Your task to perform on an android device: turn off picture-in-picture Image 0: 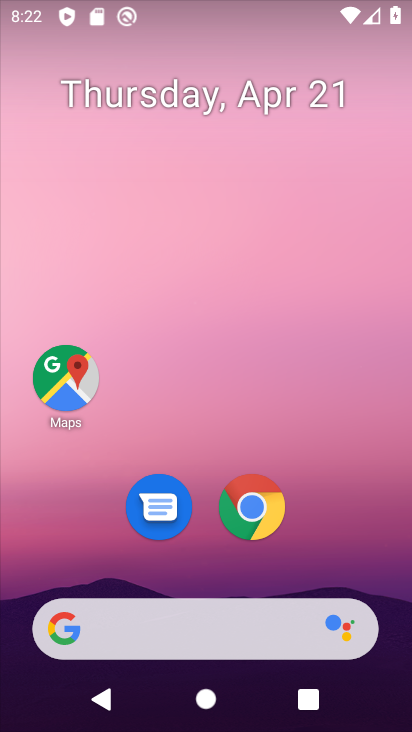
Step 0: drag from (348, 499) to (338, 135)
Your task to perform on an android device: turn off picture-in-picture Image 1: 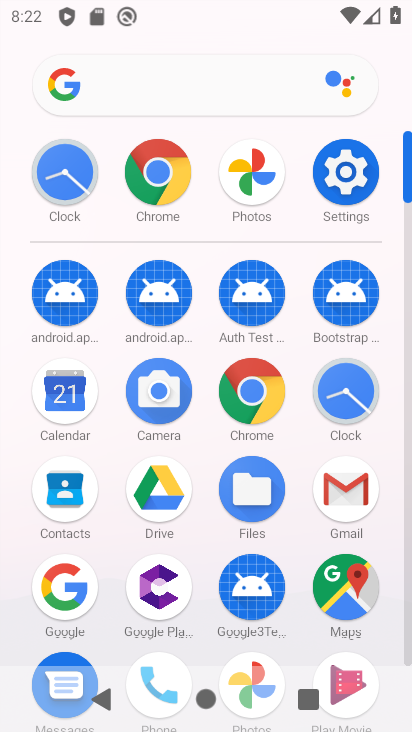
Step 1: click (365, 172)
Your task to perform on an android device: turn off picture-in-picture Image 2: 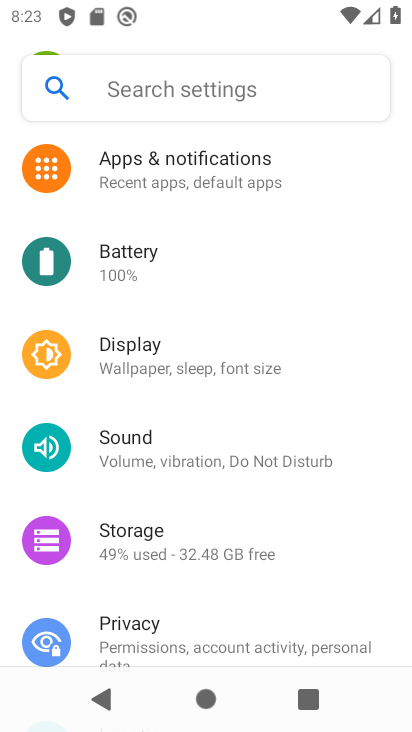
Step 2: click (245, 179)
Your task to perform on an android device: turn off picture-in-picture Image 3: 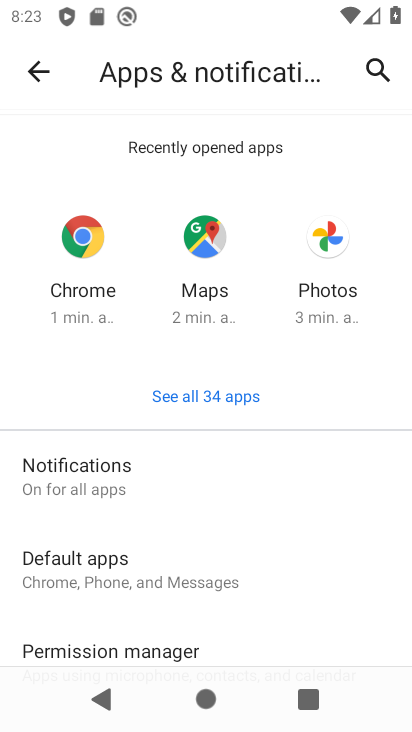
Step 3: drag from (291, 607) to (283, 208)
Your task to perform on an android device: turn off picture-in-picture Image 4: 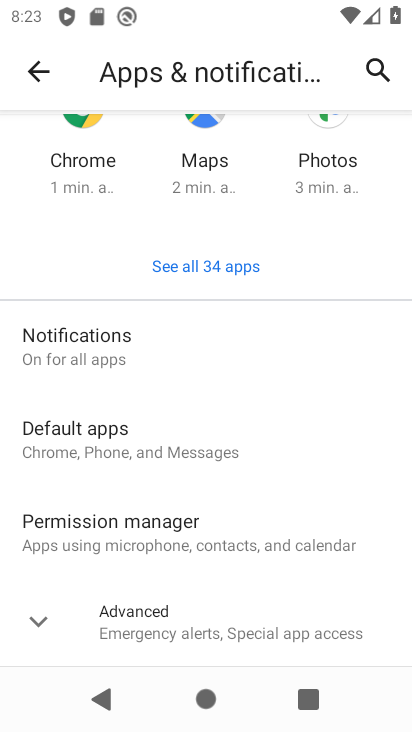
Step 4: click (287, 615)
Your task to perform on an android device: turn off picture-in-picture Image 5: 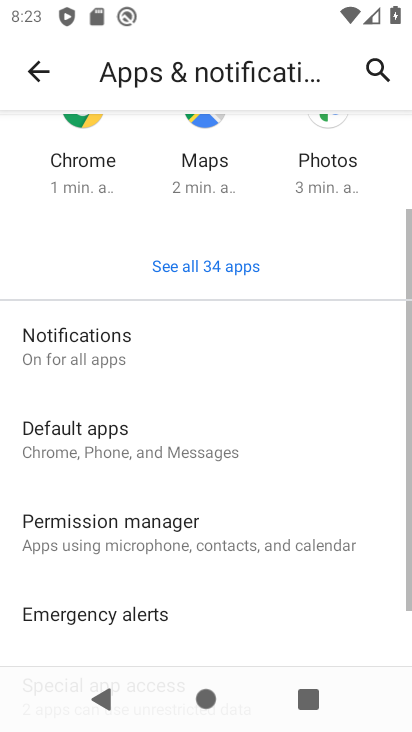
Step 5: drag from (286, 614) to (281, 243)
Your task to perform on an android device: turn off picture-in-picture Image 6: 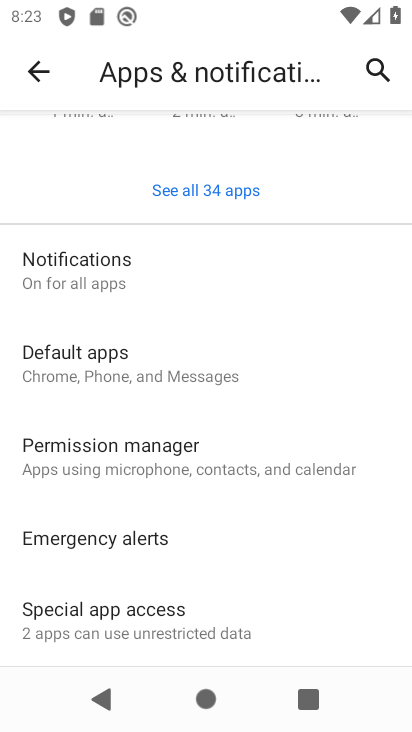
Step 6: click (216, 623)
Your task to perform on an android device: turn off picture-in-picture Image 7: 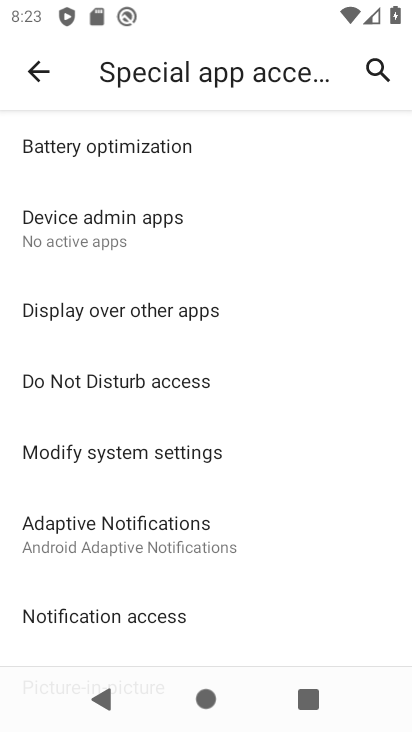
Step 7: drag from (293, 569) to (311, 189)
Your task to perform on an android device: turn off picture-in-picture Image 8: 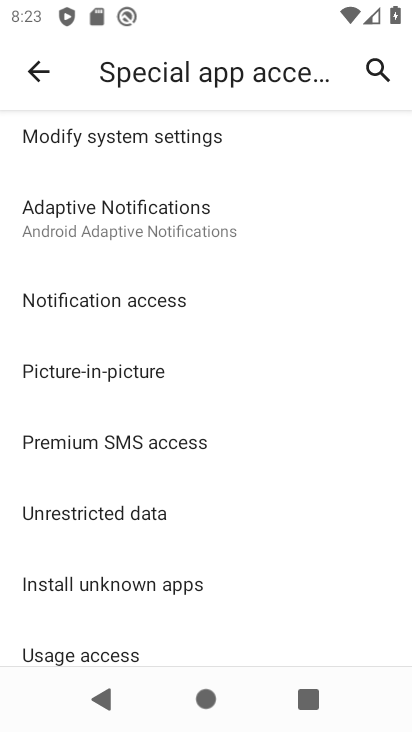
Step 8: click (157, 370)
Your task to perform on an android device: turn off picture-in-picture Image 9: 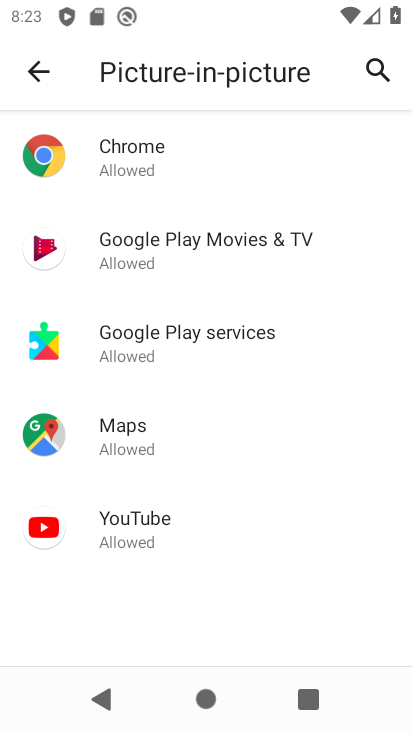
Step 9: click (134, 167)
Your task to perform on an android device: turn off picture-in-picture Image 10: 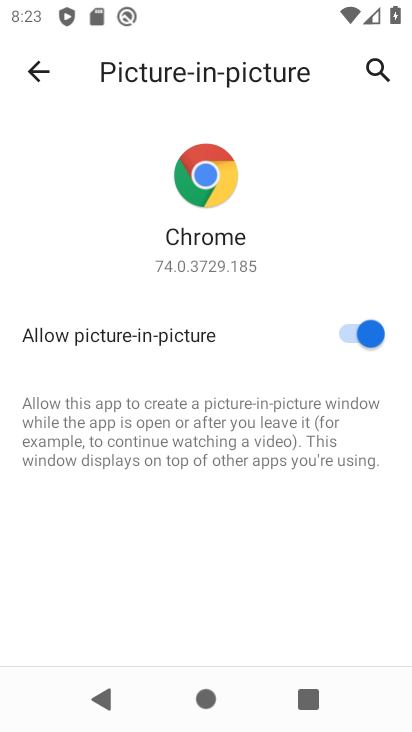
Step 10: click (348, 333)
Your task to perform on an android device: turn off picture-in-picture Image 11: 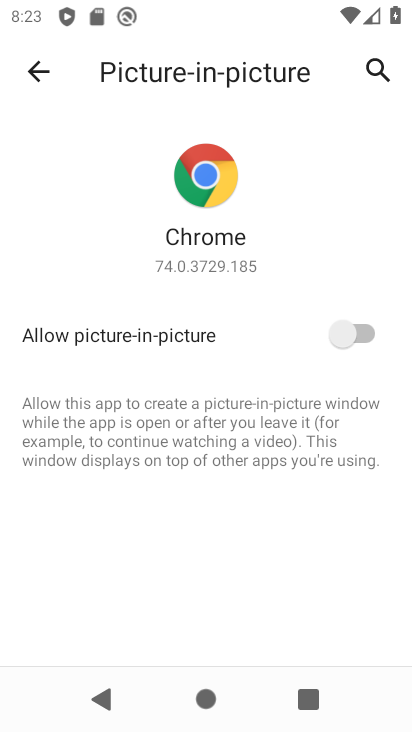
Step 11: task complete